Your task to perform on an android device: Is it going to rain today? Image 0: 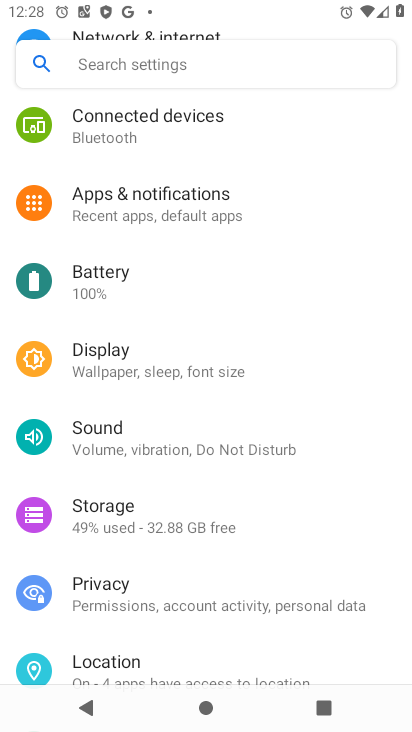
Step 0: press home button
Your task to perform on an android device: Is it going to rain today? Image 1: 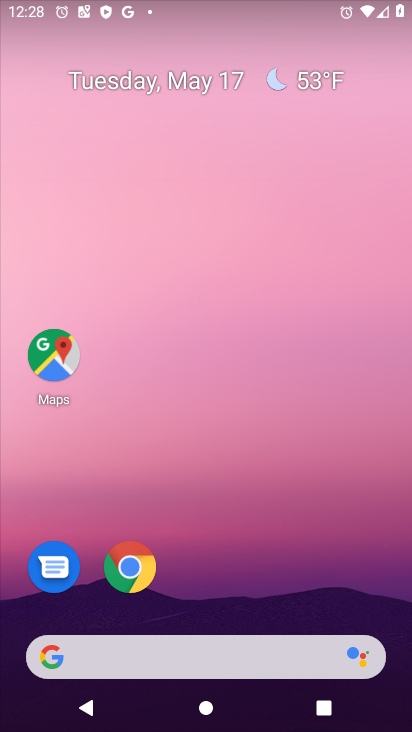
Step 1: click (226, 662)
Your task to perform on an android device: Is it going to rain today? Image 2: 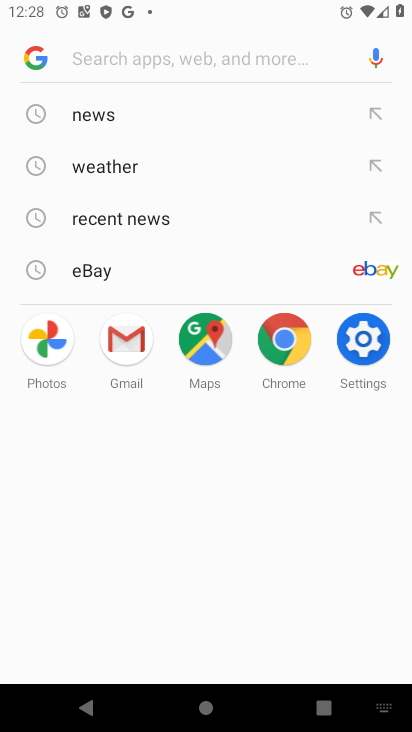
Step 2: click (138, 167)
Your task to perform on an android device: Is it going to rain today? Image 3: 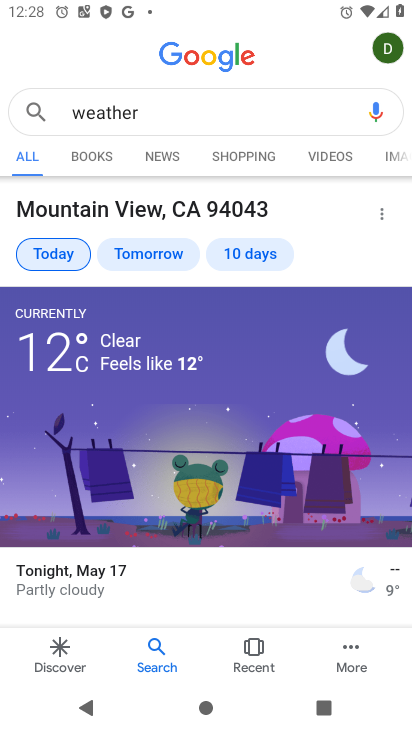
Step 3: task complete